Your task to perform on an android device: open a bookmark in the chrome app Image 0: 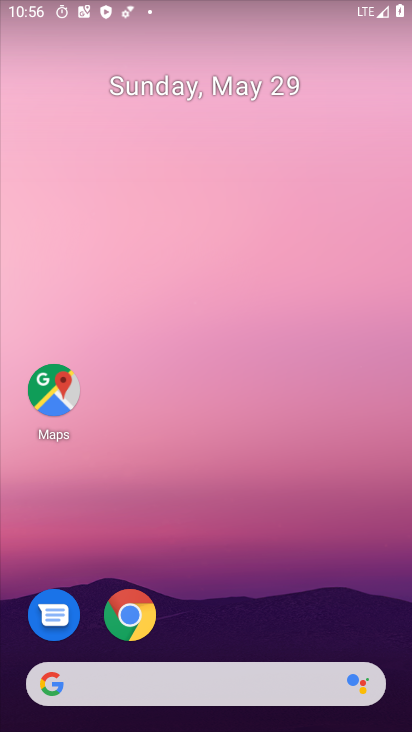
Step 0: drag from (342, 623) to (362, 186)
Your task to perform on an android device: open a bookmark in the chrome app Image 1: 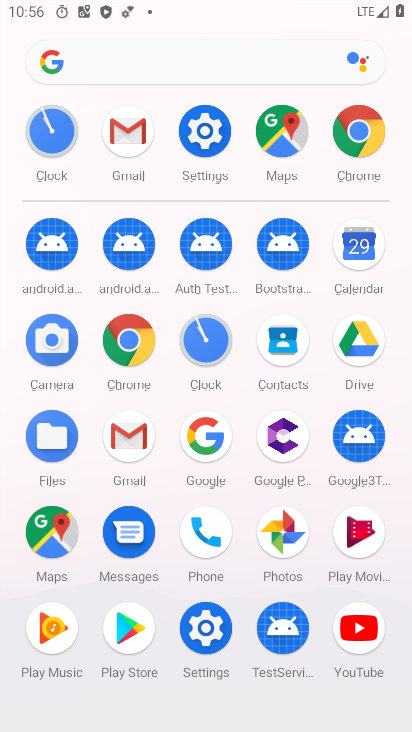
Step 1: click (141, 353)
Your task to perform on an android device: open a bookmark in the chrome app Image 2: 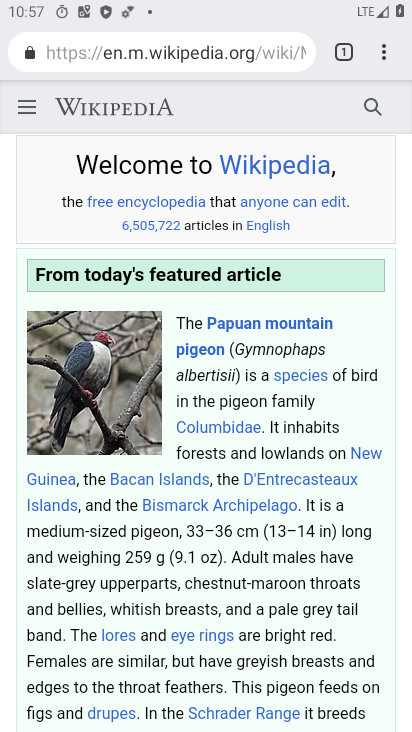
Step 2: click (382, 63)
Your task to perform on an android device: open a bookmark in the chrome app Image 3: 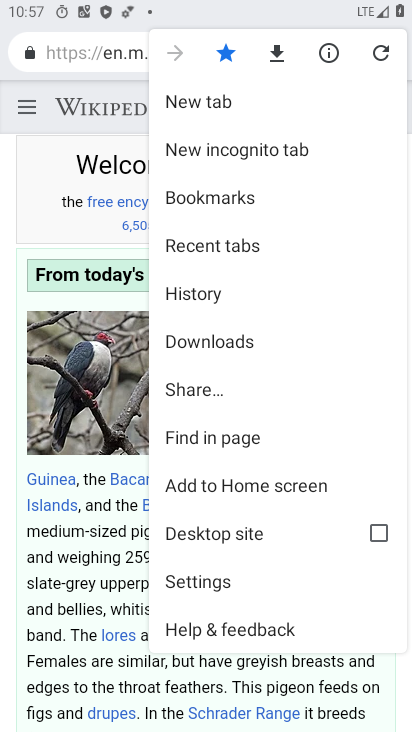
Step 3: click (241, 191)
Your task to perform on an android device: open a bookmark in the chrome app Image 4: 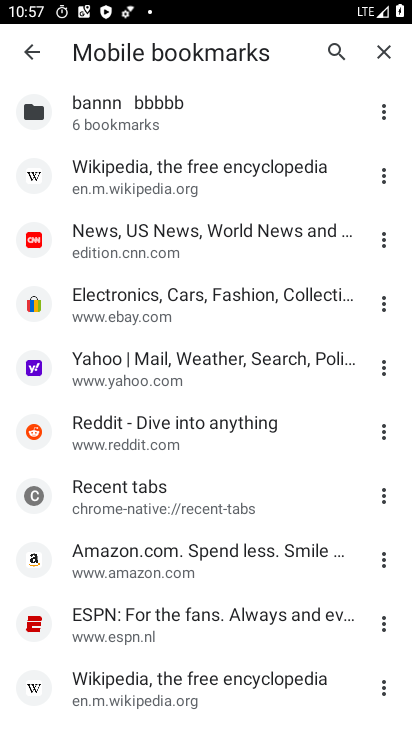
Step 4: click (181, 184)
Your task to perform on an android device: open a bookmark in the chrome app Image 5: 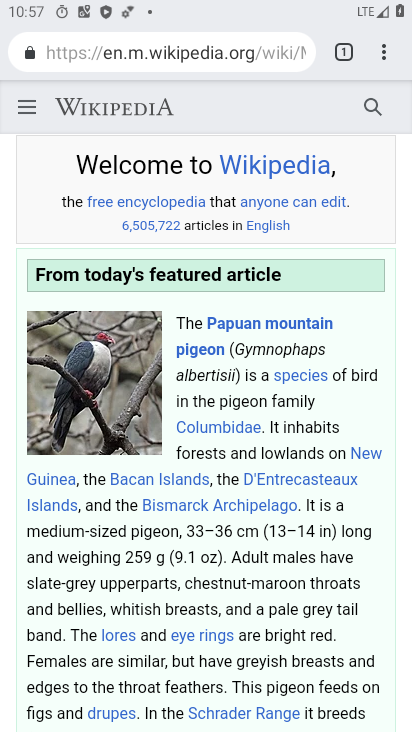
Step 5: task complete